Your task to perform on an android device: Do I have any events this weekend? Image 0: 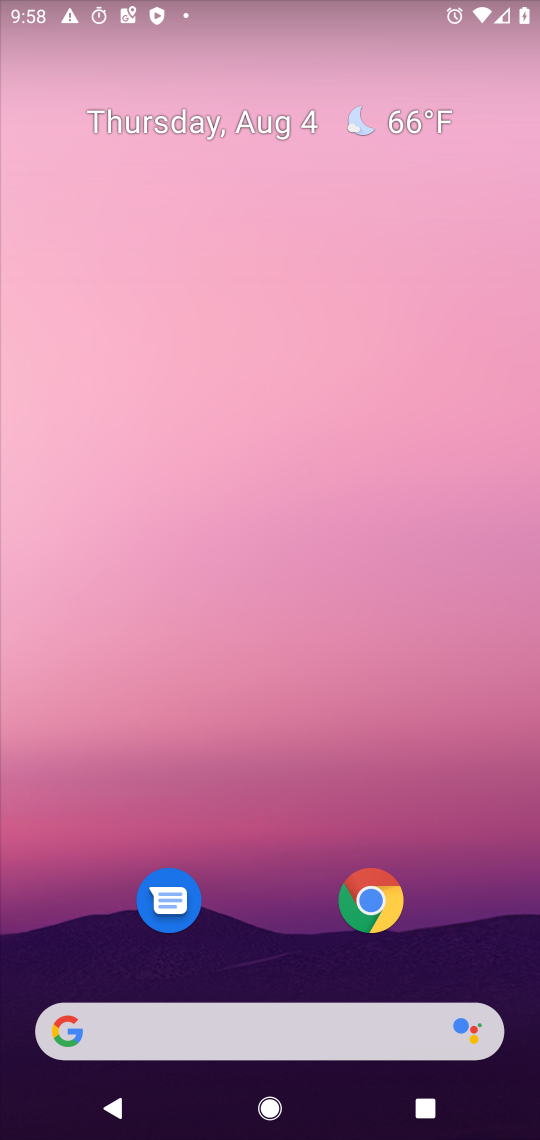
Step 0: drag from (277, 1002) to (196, 220)
Your task to perform on an android device: Do I have any events this weekend? Image 1: 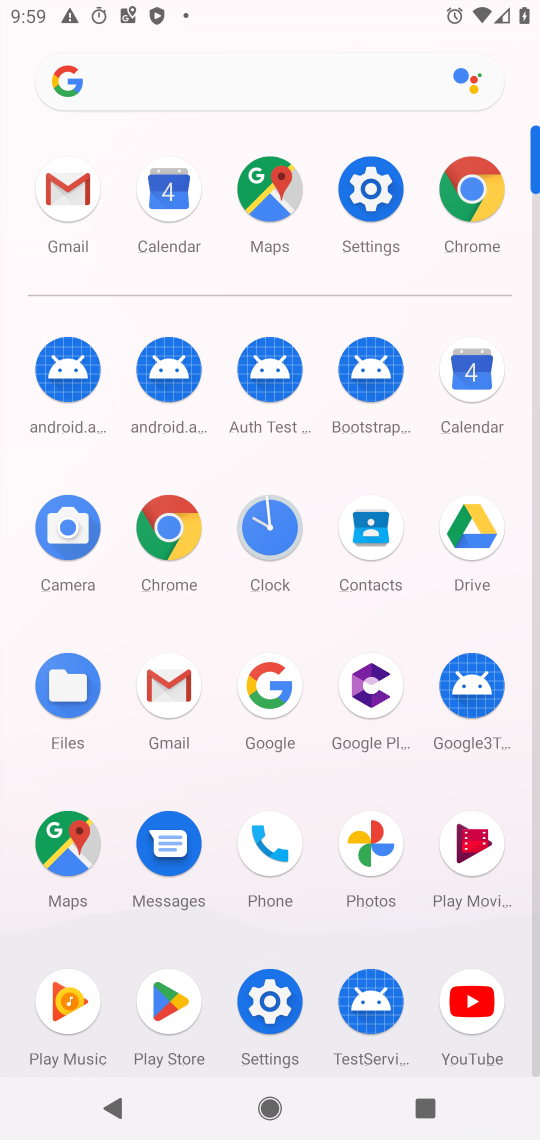
Step 1: click (469, 366)
Your task to perform on an android device: Do I have any events this weekend? Image 2: 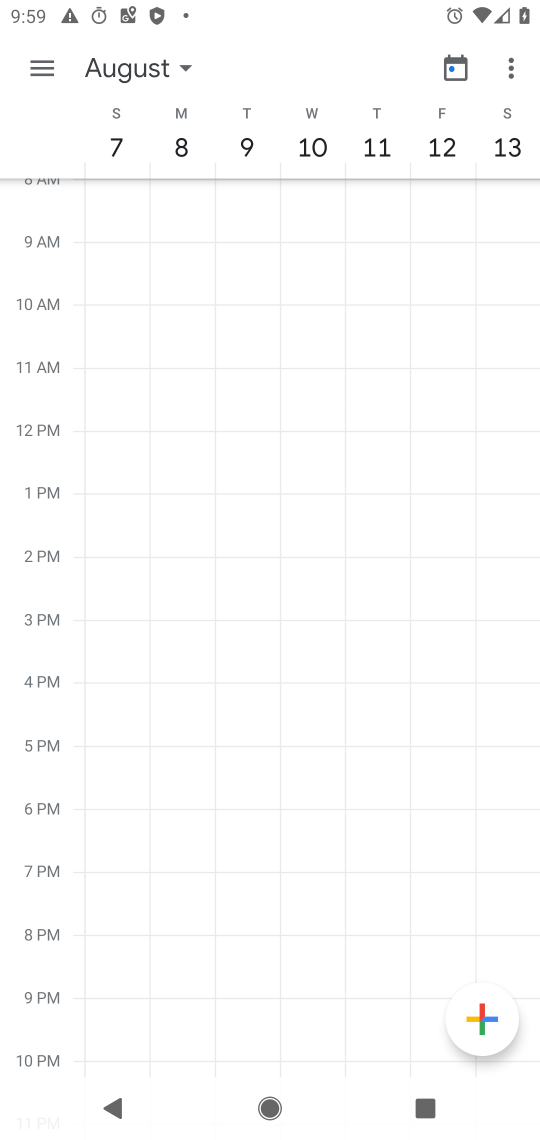
Step 2: click (463, 70)
Your task to perform on an android device: Do I have any events this weekend? Image 3: 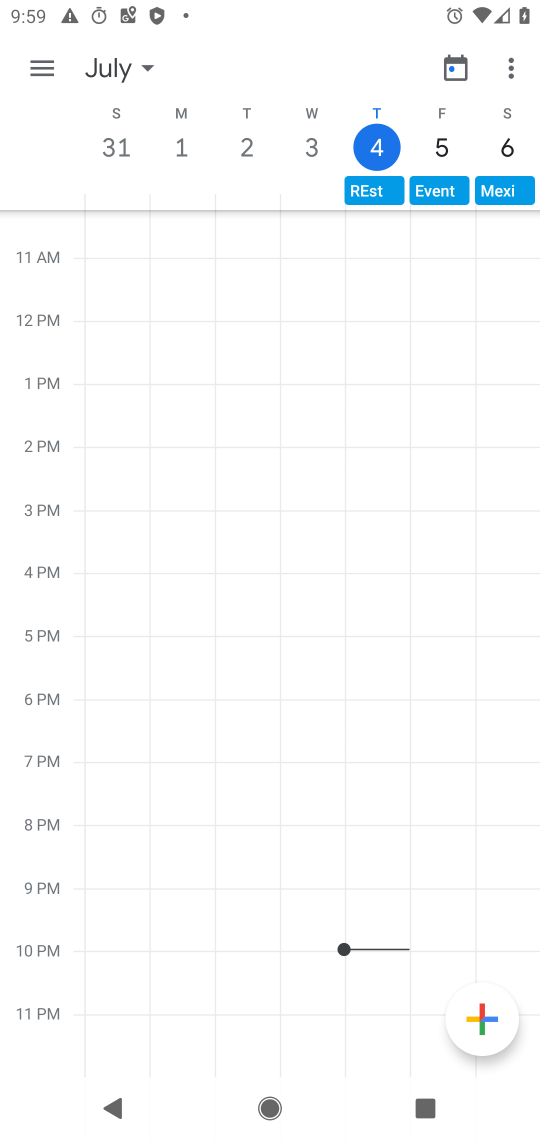
Step 3: click (147, 63)
Your task to perform on an android device: Do I have any events this weekend? Image 4: 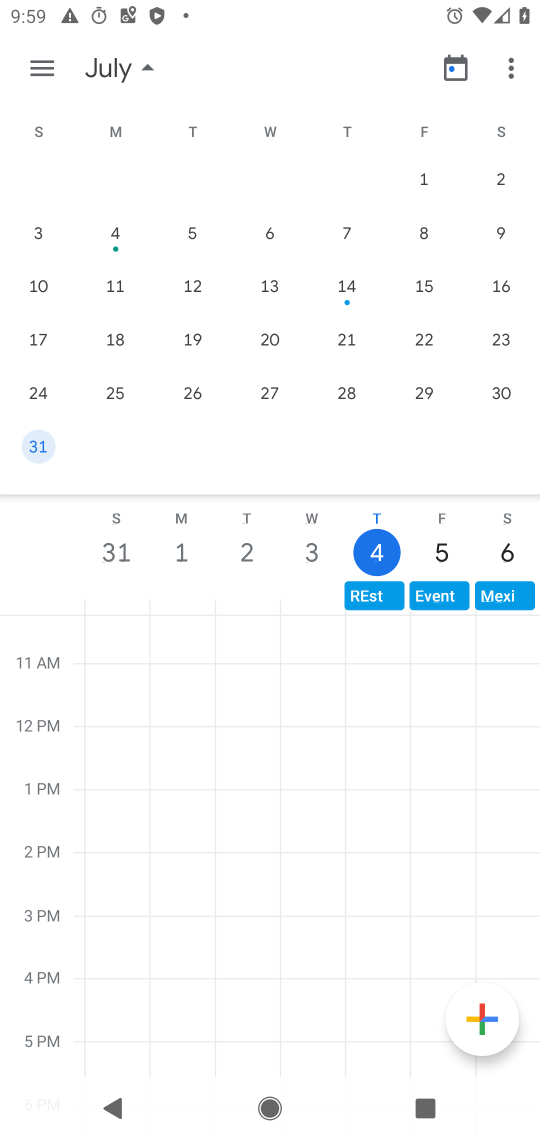
Step 4: drag from (443, 324) to (6, 308)
Your task to perform on an android device: Do I have any events this weekend? Image 5: 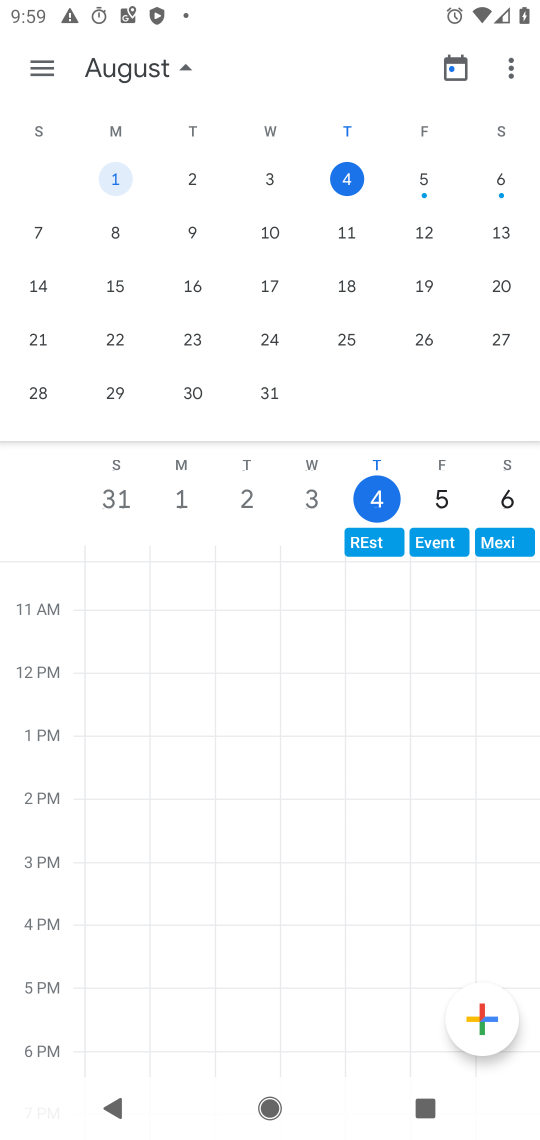
Step 5: click (499, 190)
Your task to perform on an android device: Do I have any events this weekend? Image 6: 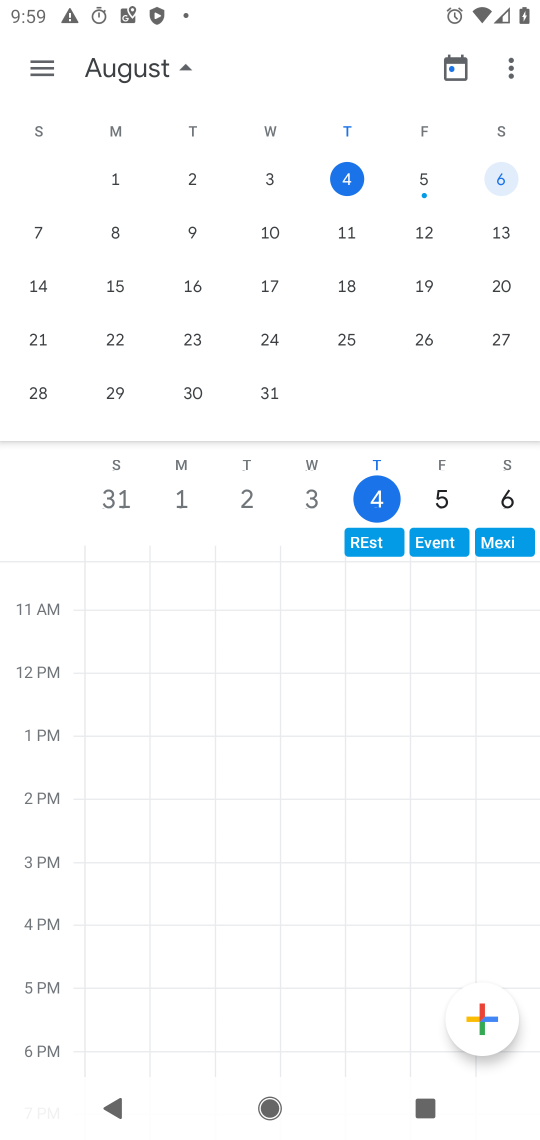
Step 6: click (57, 63)
Your task to perform on an android device: Do I have any events this weekend? Image 7: 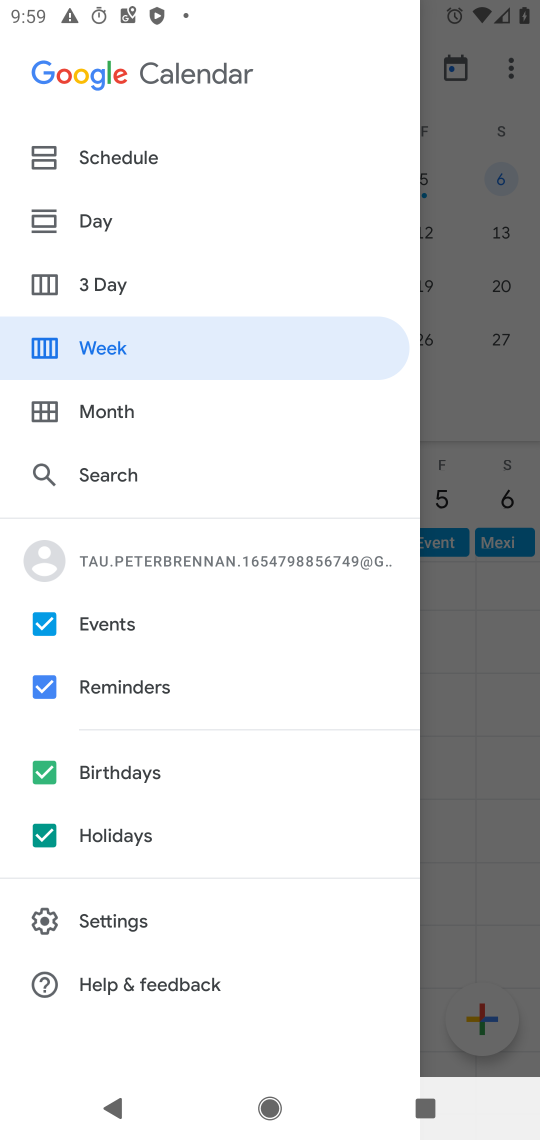
Step 7: click (87, 142)
Your task to perform on an android device: Do I have any events this weekend? Image 8: 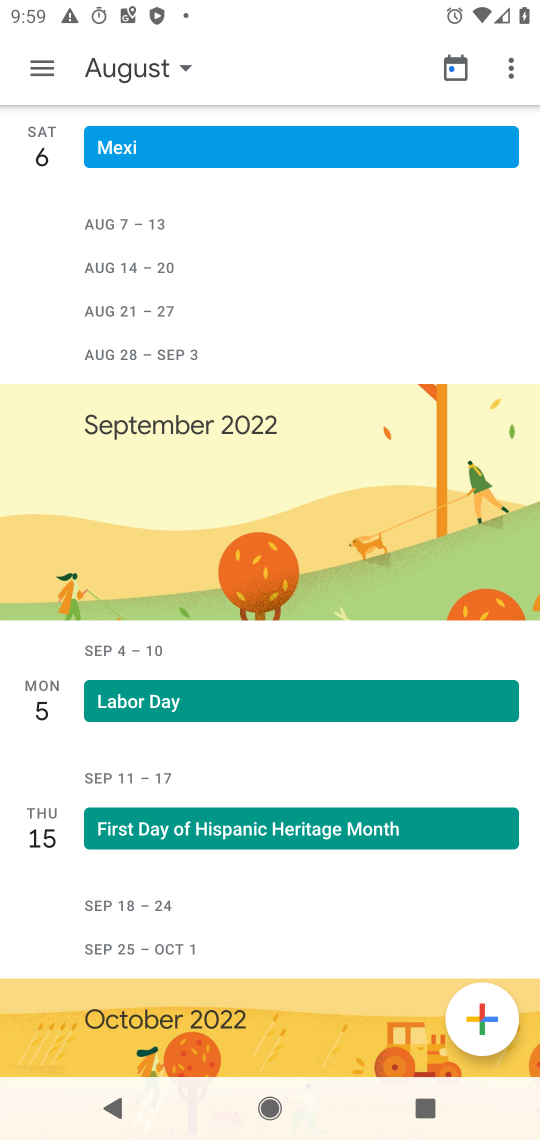
Step 8: task complete